Your task to perform on an android device: turn vacation reply on in the gmail app Image 0: 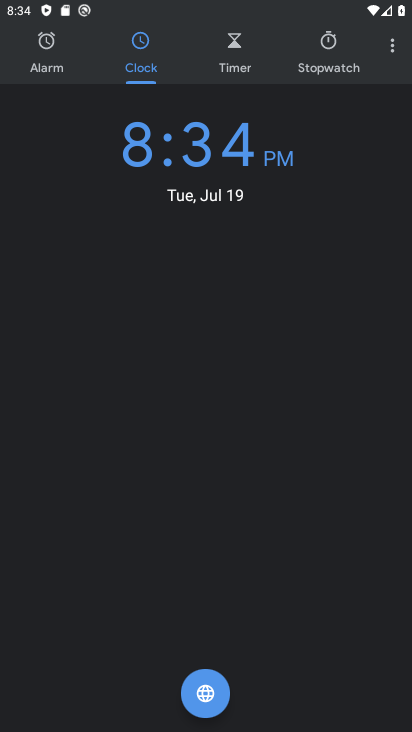
Step 0: press home button
Your task to perform on an android device: turn vacation reply on in the gmail app Image 1: 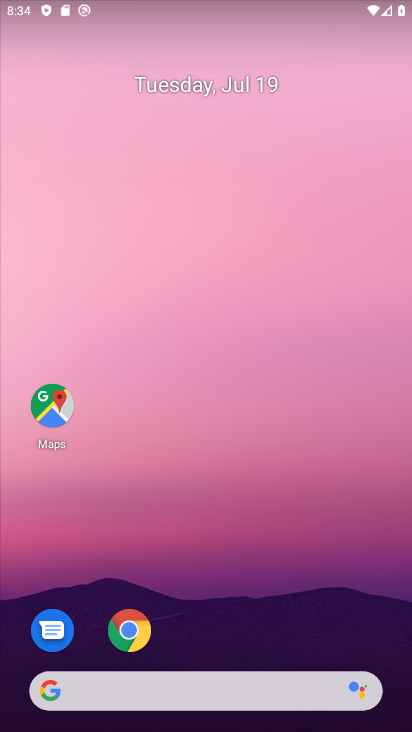
Step 1: drag from (218, 689) to (277, 221)
Your task to perform on an android device: turn vacation reply on in the gmail app Image 2: 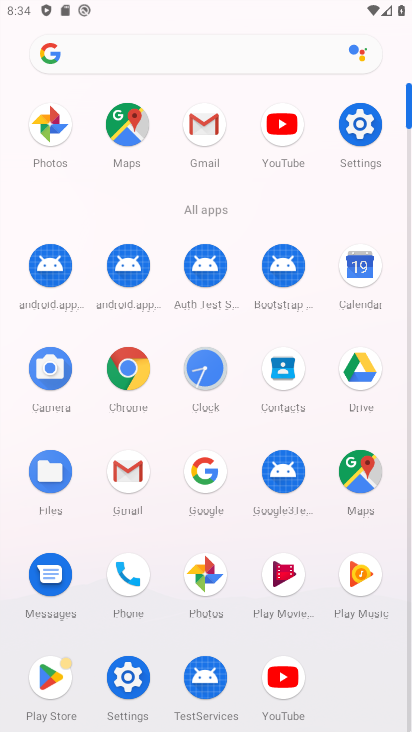
Step 2: click (203, 124)
Your task to perform on an android device: turn vacation reply on in the gmail app Image 3: 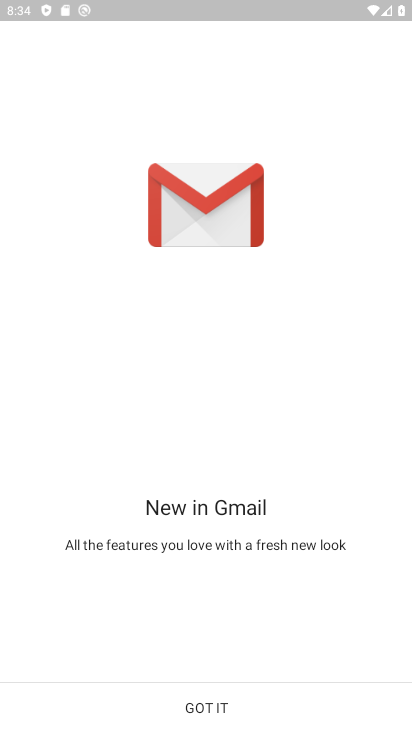
Step 3: click (204, 709)
Your task to perform on an android device: turn vacation reply on in the gmail app Image 4: 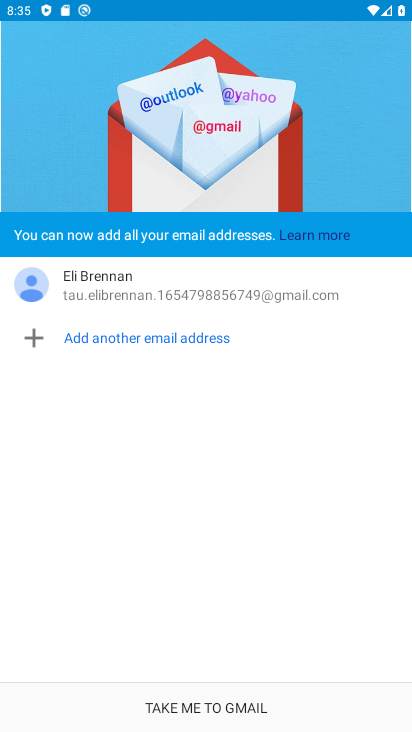
Step 4: click (212, 707)
Your task to perform on an android device: turn vacation reply on in the gmail app Image 5: 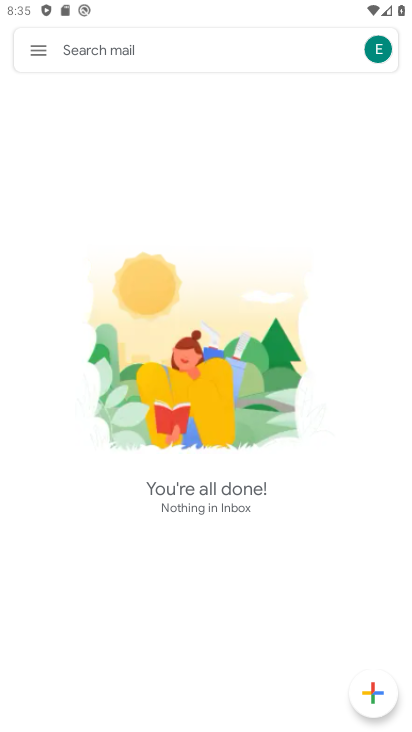
Step 5: click (39, 52)
Your task to perform on an android device: turn vacation reply on in the gmail app Image 6: 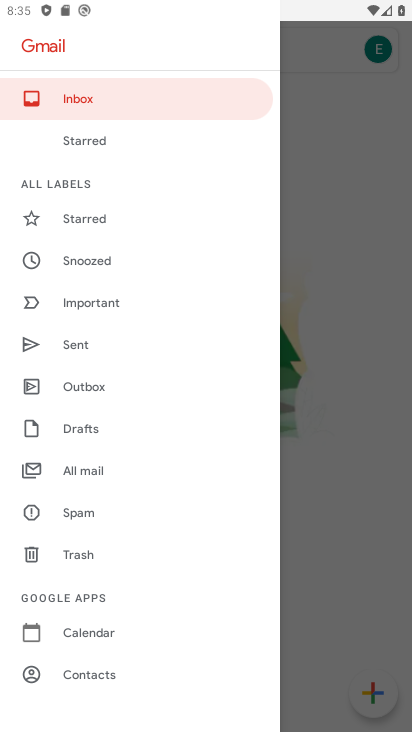
Step 6: drag from (62, 597) to (136, 481)
Your task to perform on an android device: turn vacation reply on in the gmail app Image 7: 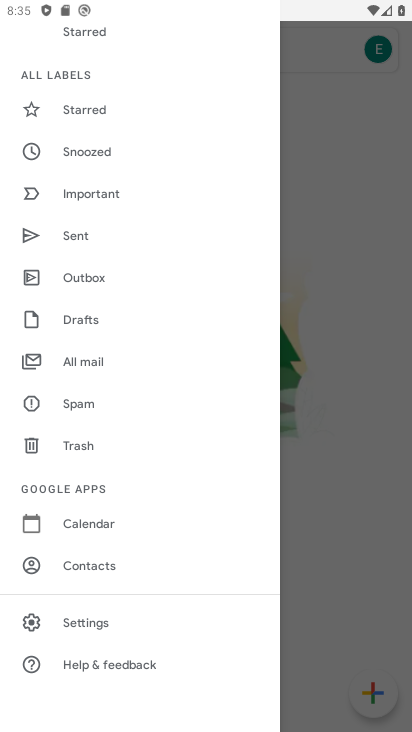
Step 7: click (88, 625)
Your task to perform on an android device: turn vacation reply on in the gmail app Image 8: 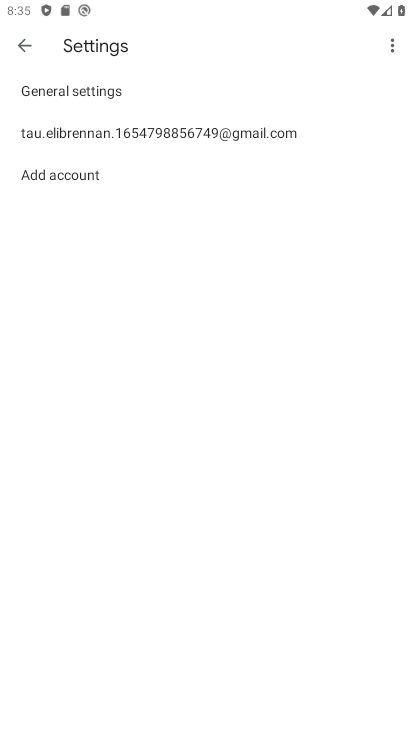
Step 8: click (135, 130)
Your task to perform on an android device: turn vacation reply on in the gmail app Image 9: 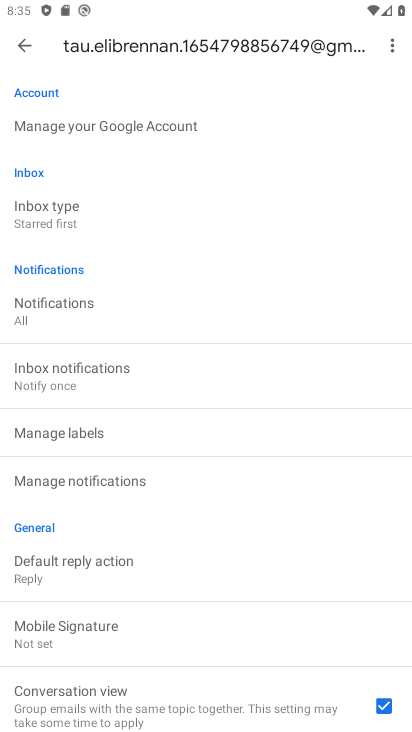
Step 9: drag from (76, 498) to (146, 397)
Your task to perform on an android device: turn vacation reply on in the gmail app Image 10: 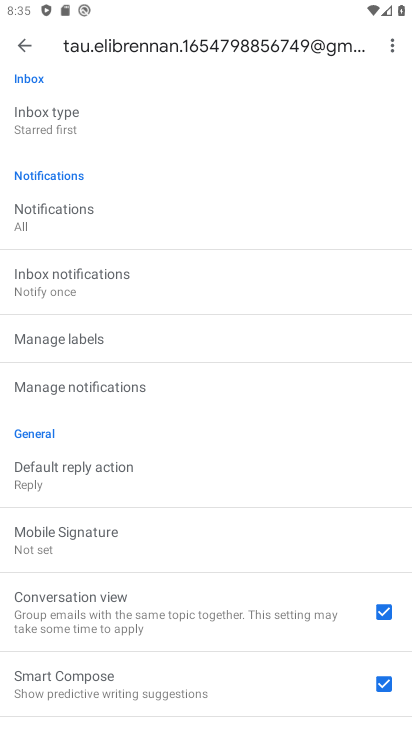
Step 10: drag from (103, 644) to (186, 509)
Your task to perform on an android device: turn vacation reply on in the gmail app Image 11: 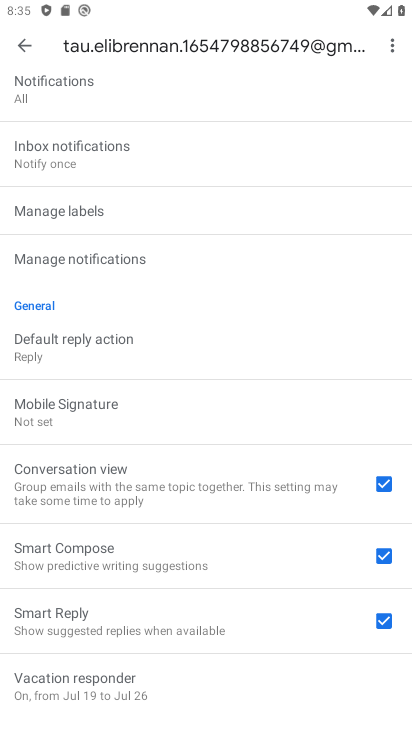
Step 11: drag from (106, 647) to (244, 469)
Your task to perform on an android device: turn vacation reply on in the gmail app Image 12: 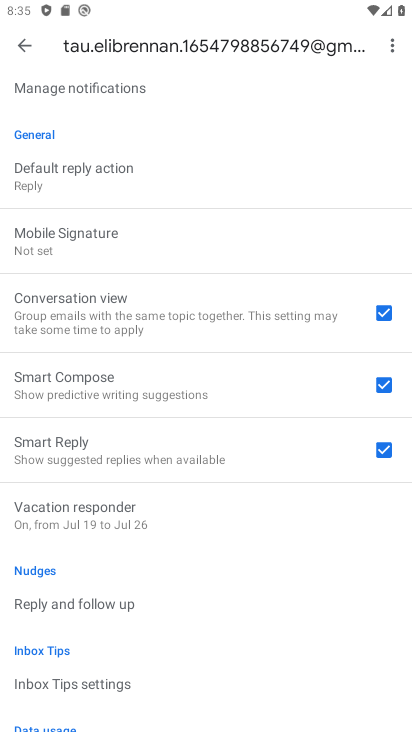
Step 12: click (179, 515)
Your task to perform on an android device: turn vacation reply on in the gmail app Image 13: 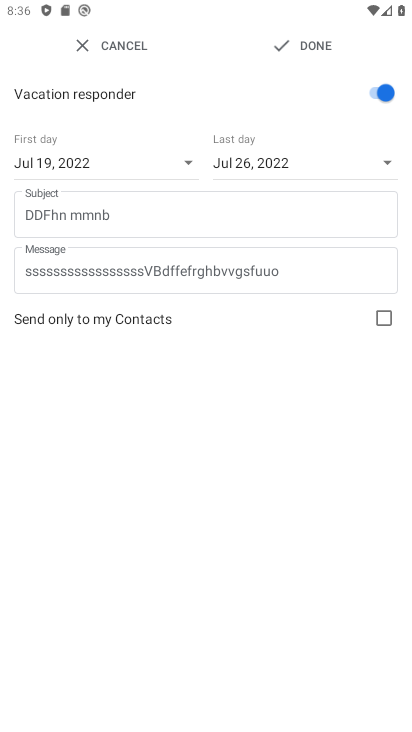
Step 13: task complete